Your task to perform on an android device: check google app version Image 0: 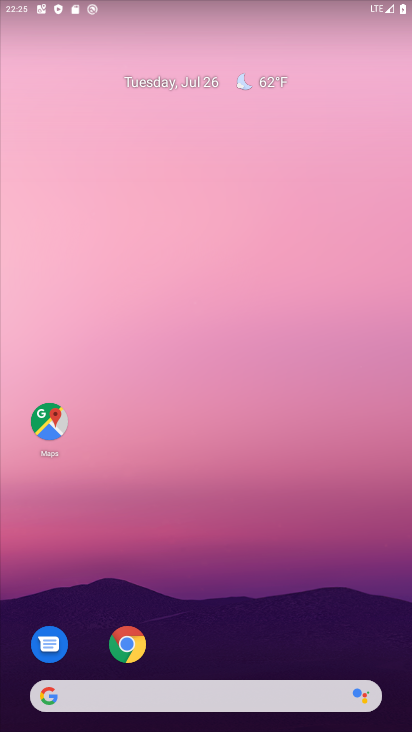
Step 0: drag from (212, 674) to (206, 9)
Your task to perform on an android device: check google app version Image 1: 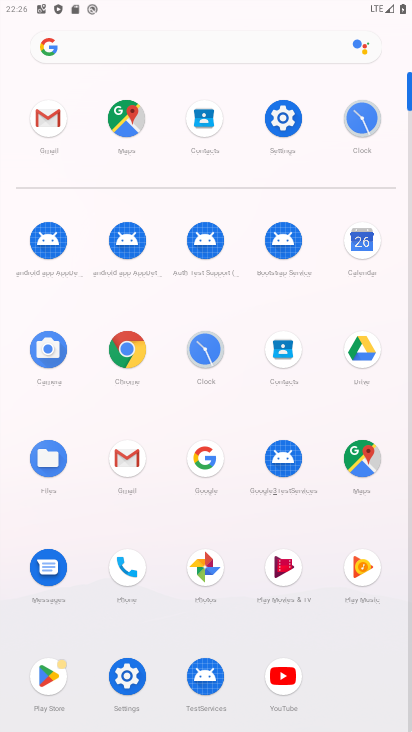
Step 1: click (201, 454)
Your task to perform on an android device: check google app version Image 2: 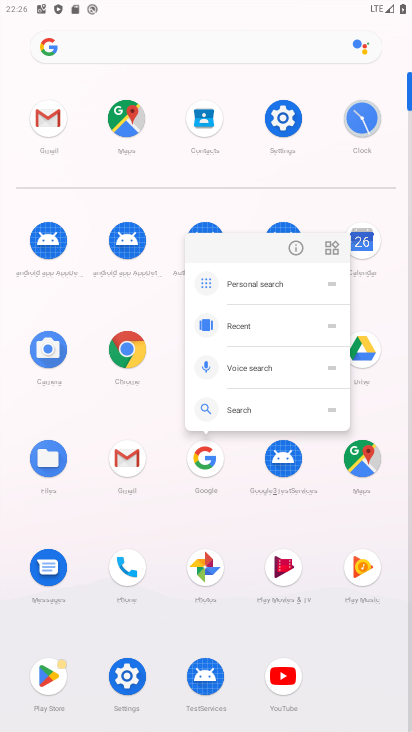
Step 2: click (299, 251)
Your task to perform on an android device: check google app version Image 3: 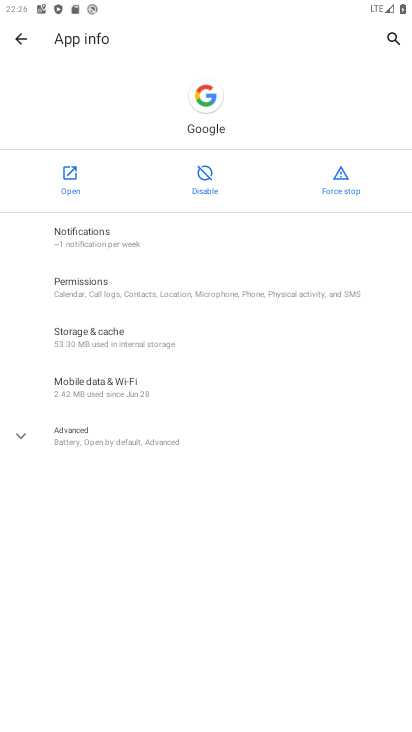
Step 3: click (23, 439)
Your task to perform on an android device: check google app version Image 4: 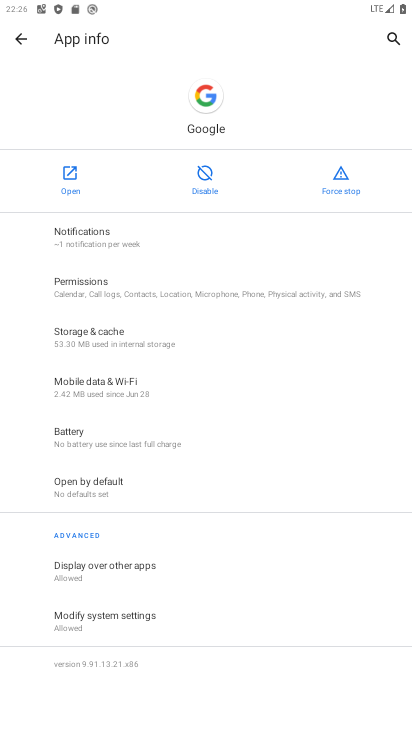
Step 4: task complete